Your task to perform on an android device: Open privacy settings Image 0: 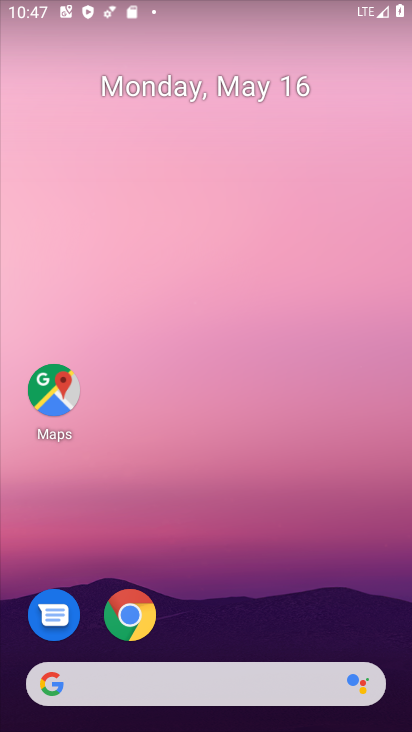
Step 0: drag from (257, 625) to (238, 187)
Your task to perform on an android device: Open privacy settings Image 1: 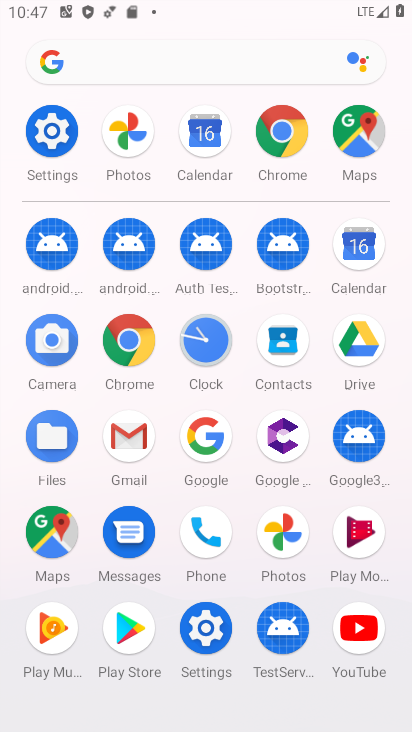
Step 1: click (57, 158)
Your task to perform on an android device: Open privacy settings Image 2: 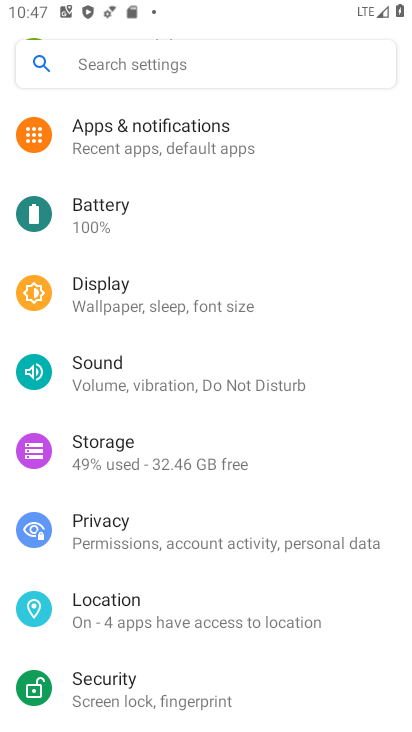
Step 2: drag from (151, 612) to (213, 257)
Your task to perform on an android device: Open privacy settings Image 3: 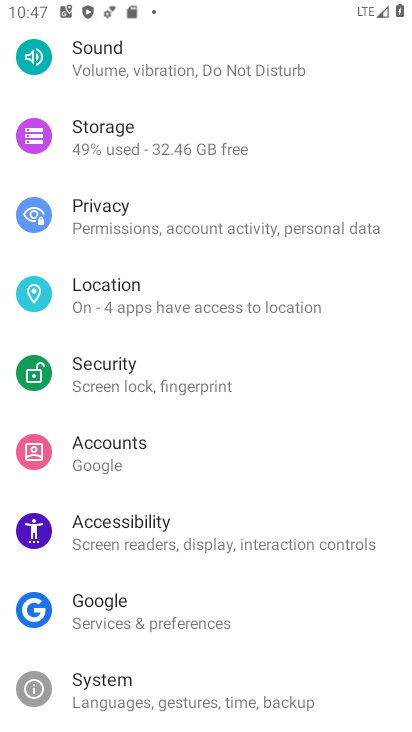
Step 3: drag from (218, 626) to (211, 430)
Your task to perform on an android device: Open privacy settings Image 4: 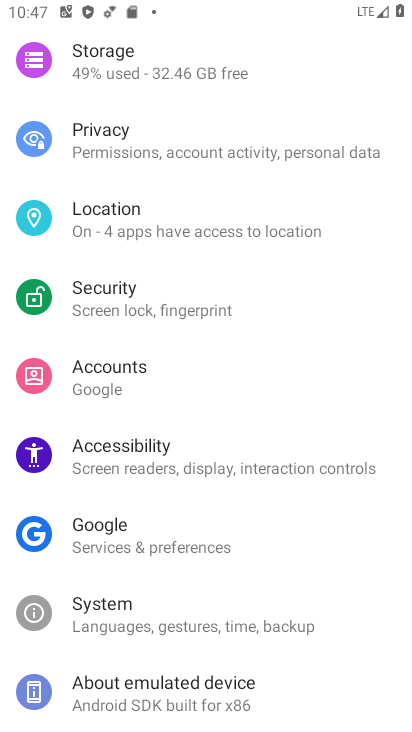
Step 4: drag from (194, 375) to (209, 559)
Your task to perform on an android device: Open privacy settings Image 5: 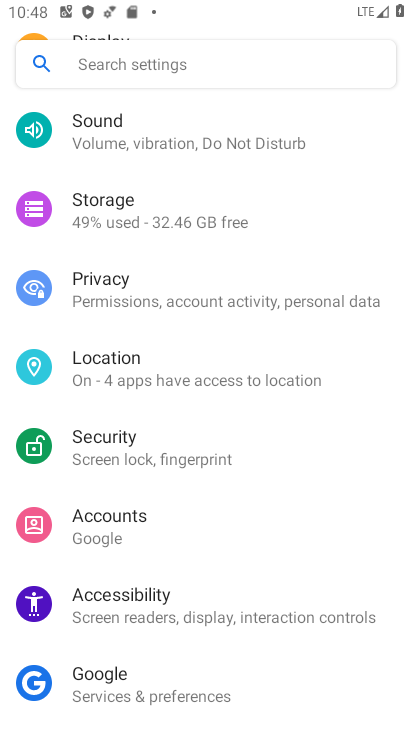
Step 5: click (206, 256)
Your task to perform on an android device: Open privacy settings Image 6: 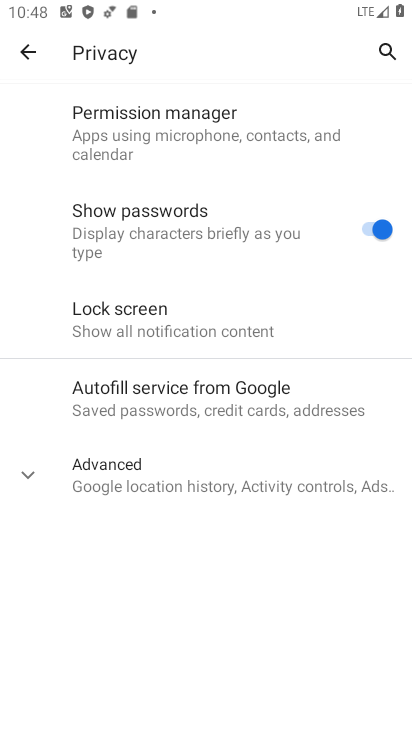
Step 6: task complete